Your task to perform on an android device: turn on translation in the chrome app Image 0: 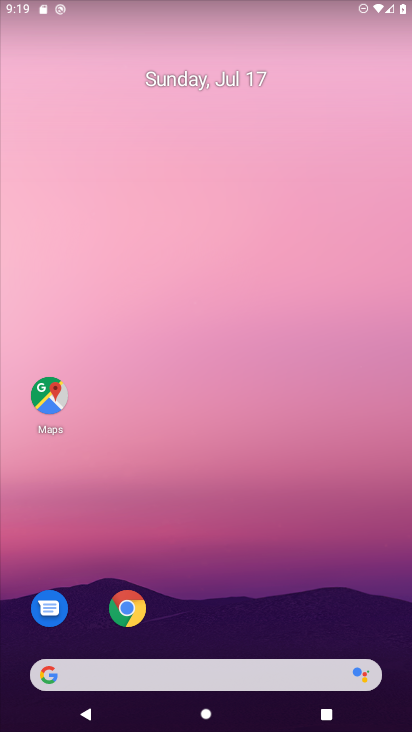
Step 0: click (125, 614)
Your task to perform on an android device: turn on translation in the chrome app Image 1: 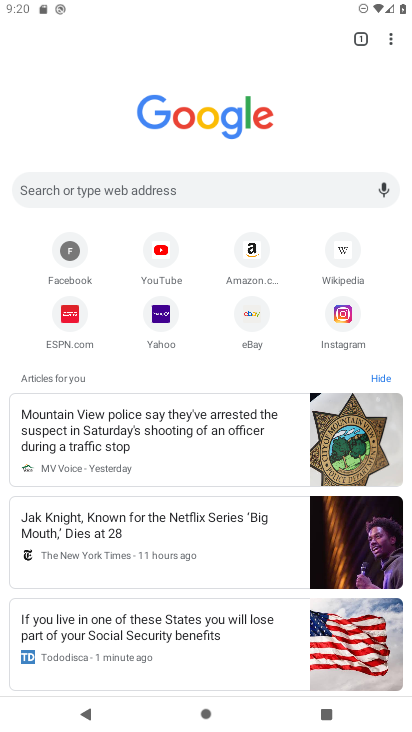
Step 1: click (390, 41)
Your task to perform on an android device: turn on translation in the chrome app Image 2: 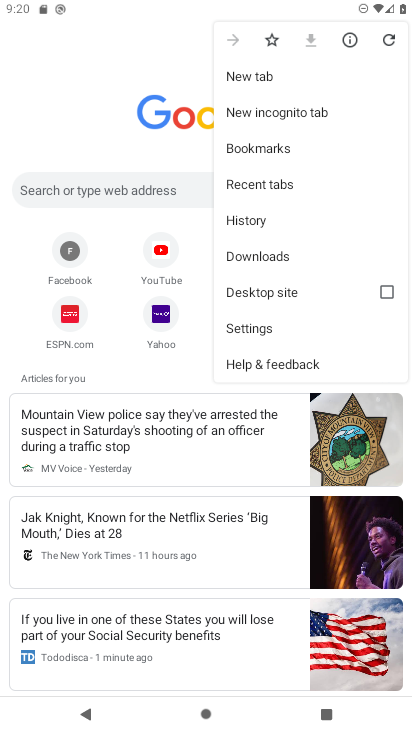
Step 2: click (259, 331)
Your task to perform on an android device: turn on translation in the chrome app Image 3: 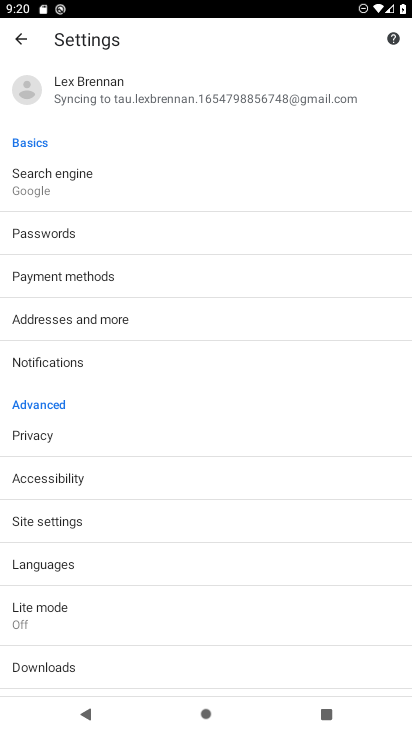
Step 3: click (54, 556)
Your task to perform on an android device: turn on translation in the chrome app Image 4: 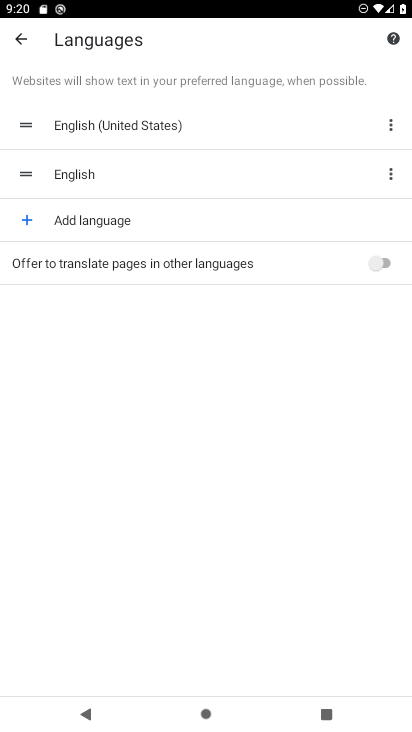
Step 4: click (386, 274)
Your task to perform on an android device: turn on translation in the chrome app Image 5: 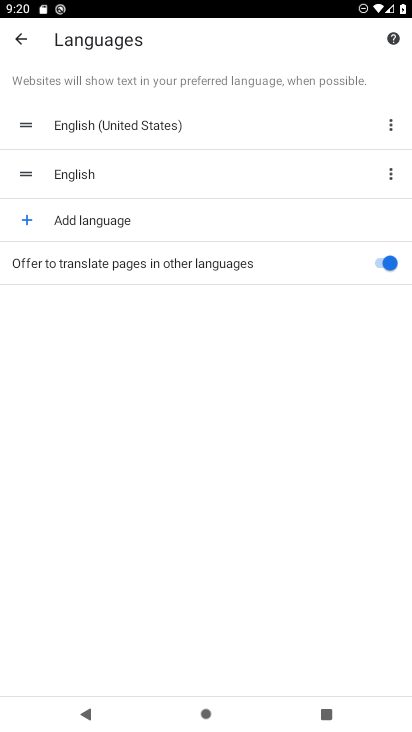
Step 5: task complete